Your task to perform on an android device: see creations saved in the google photos Image 0: 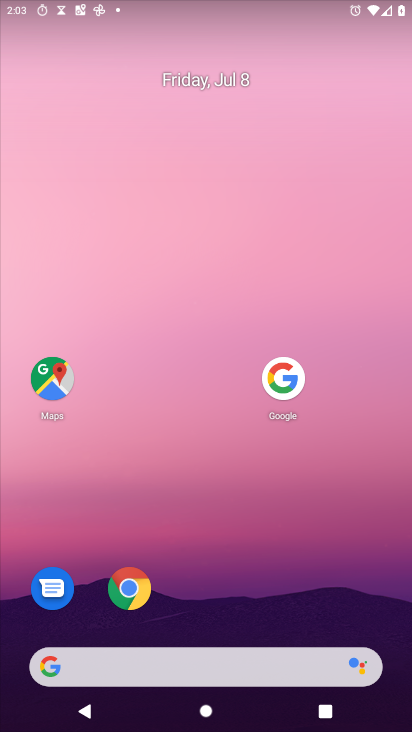
Step 0: drag from (139, 670) to (254, 116)
Your task to perform on an android device: see creations saved in the google photos Image 1: 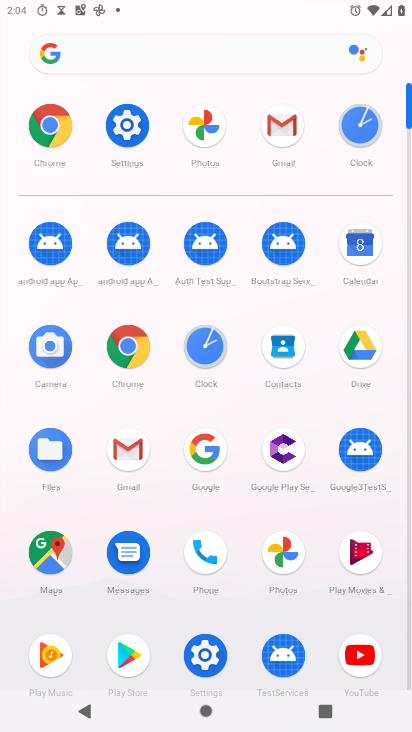
Step 1: click (284, 554)
Your task to perform on an android device: see creations saved in the google photos Image 2: 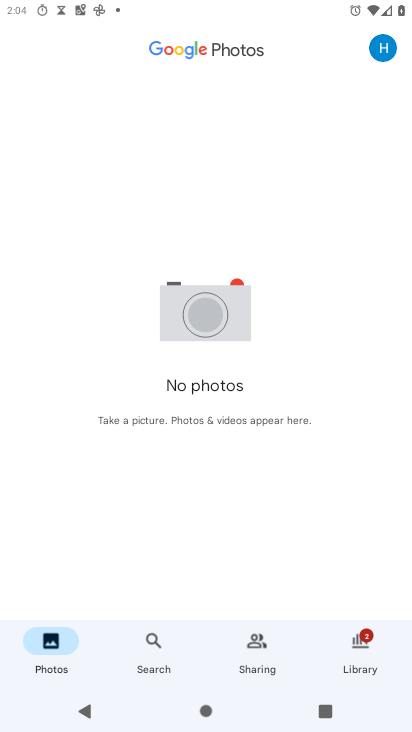
Step 2: click (153, 668)
Your task to perform on an android device: see creations saved in the google photos Image 3: 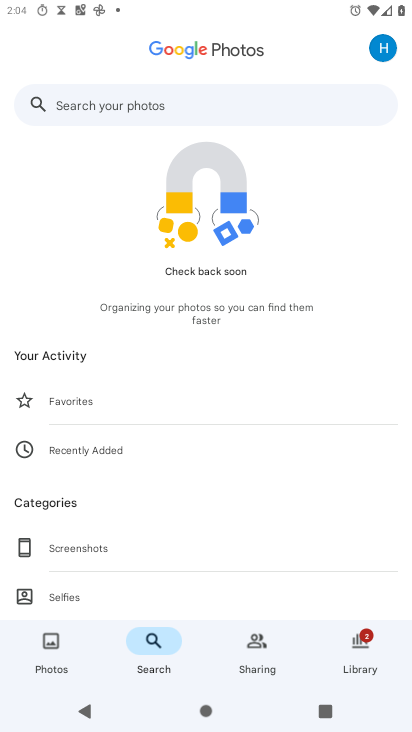
Step 3: drag from (147, 559) to (252, 112)
Your task to perform on an android device: see creations saved in the google photos Image 4: 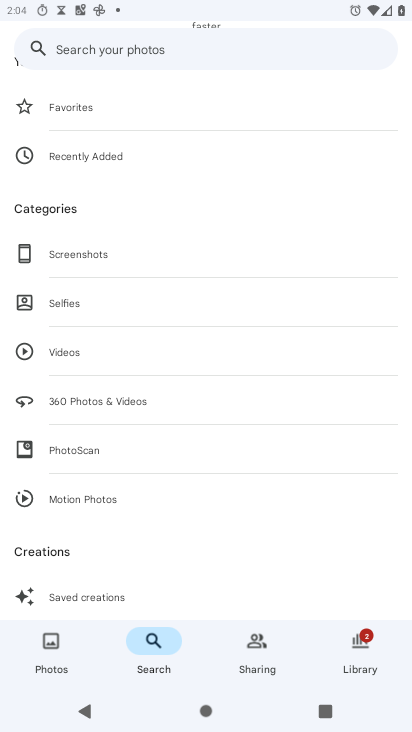
Step 4: click (99, 590)
Your task to perform on an android device: see creations saved in the google photos Image 5: 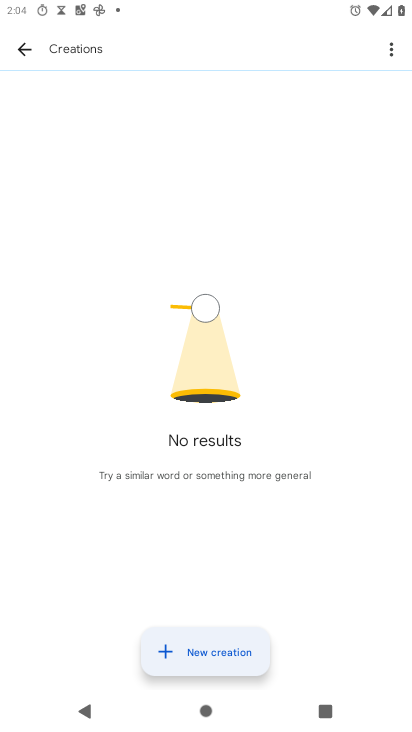
Step 5: task complete